Your task to perform on an android device: open chrome and create a bookmark for the current page Image 0: 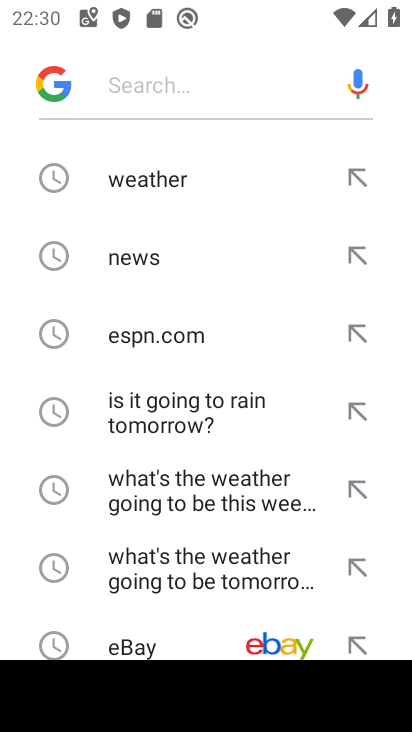
Step 0: press home button
Your task to perform on an android device: open chrome and create a bookmark for the current page Image 1: 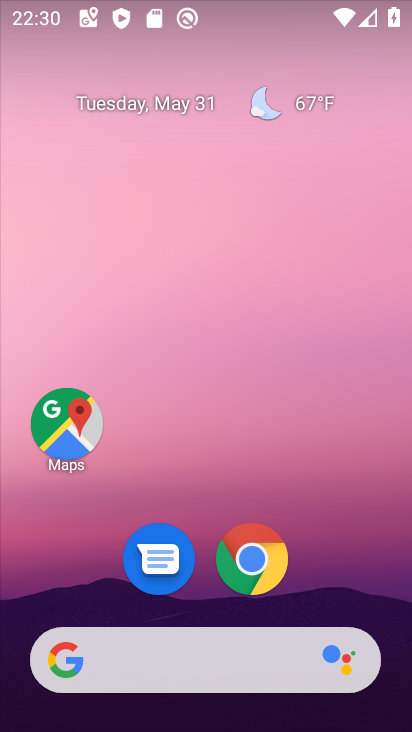
Step 1: click (251, 564)
Your task to perform on an android device: open chrome and create a bookmark for the current page Image 2: 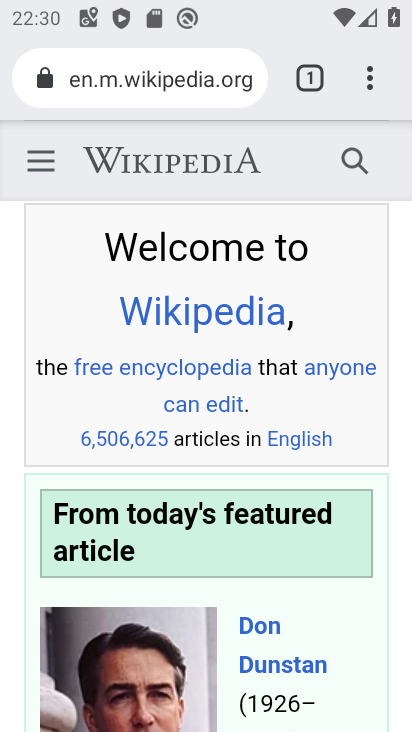
Step 2: click (365, 84)
Your task to perform on an android device: open chrome and create a bookmark for the current page Image 3: 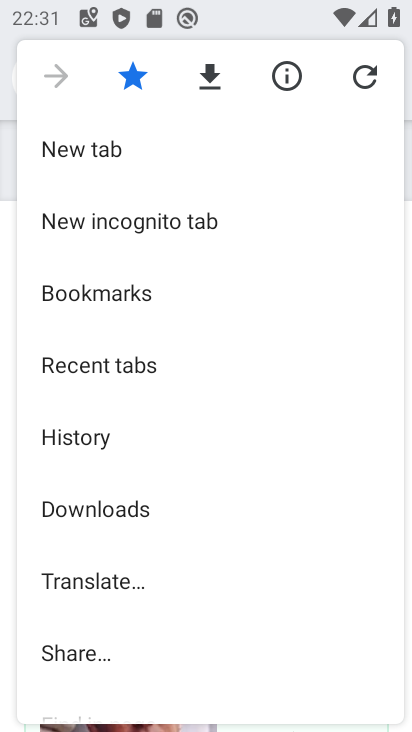
Step 3: task complete